Your task to perform on an android device: clear history in the chrome app Image 0: 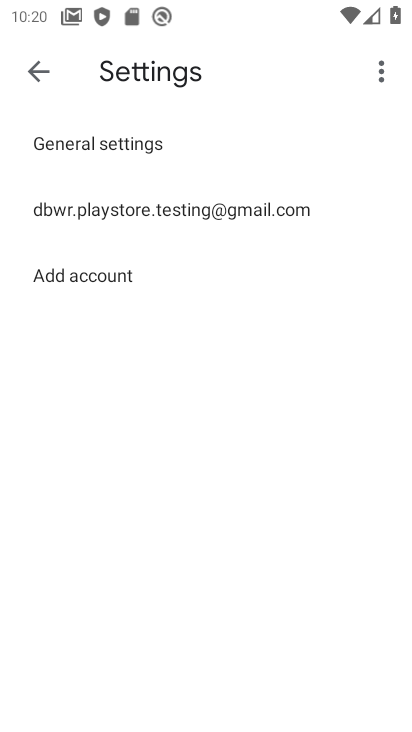
Step 0: press home button
Your task to perform on an android device: clear history in the chrome app Image 1: 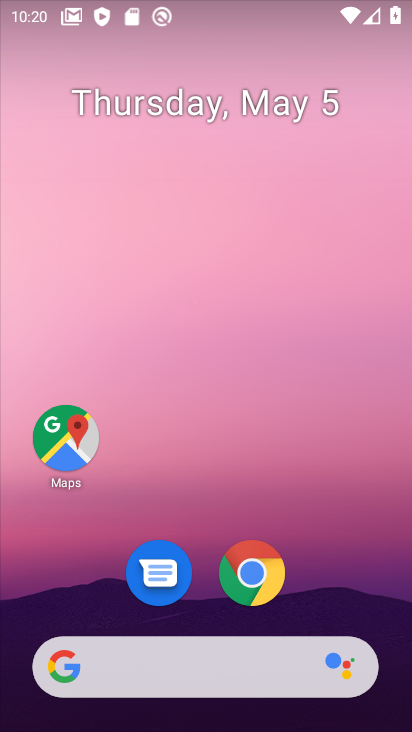
Step 1: click (250, 581)
Your task to perform on an android device: clear history in the chrome app Image 2: 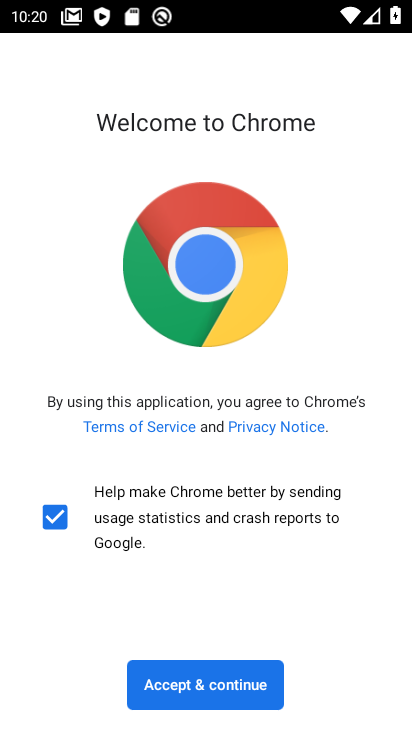
Step 2: click (233, 698)
Your task to perform on an android device: clear history in the chrome app Image 3: 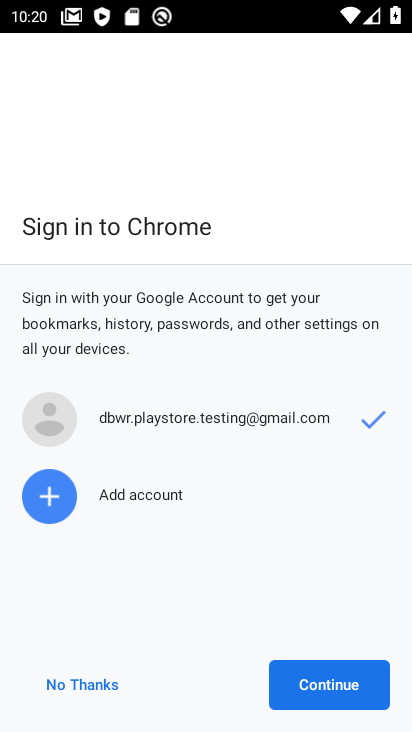
Step 3: click (87, 683)
Your task to perform on an android device: clear history in the chrome app Image 4: 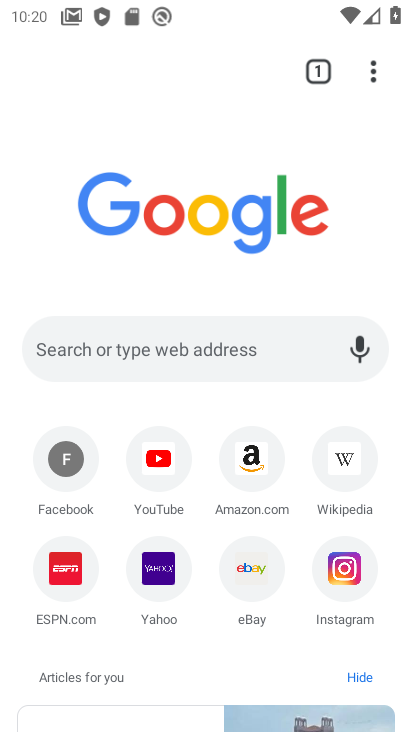
Step 4: click (374, 68)
Your task to perform on an android device: clear history in the chrome app Image 5: 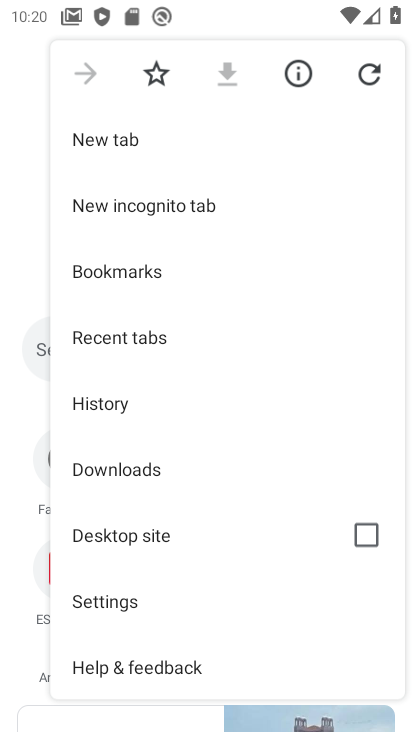
Step 5: click (122, 395)
Your task to perform on an android device: clear history in the chrome app Image 6: 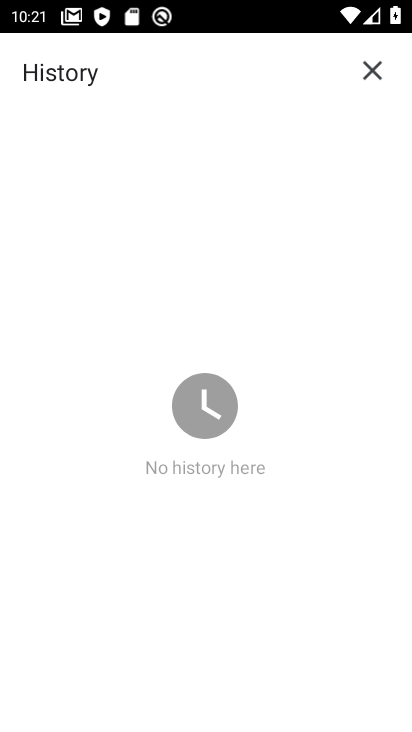
Step 6: task complete